Your task to perform on an android device: check battery use Image 0: 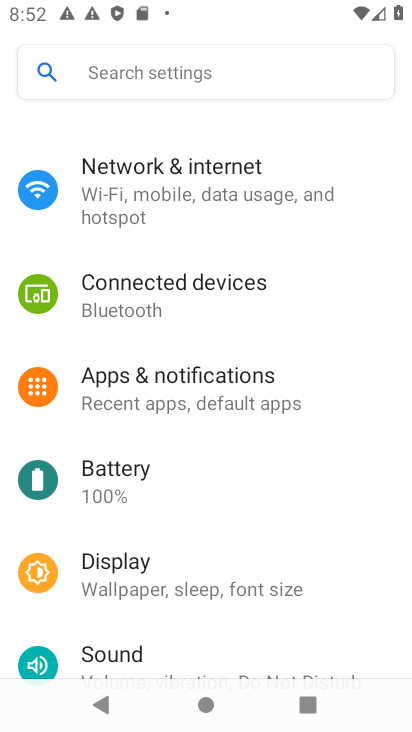
Step 0: press home button
Your task to perform on an android device: check battery use Image 1: 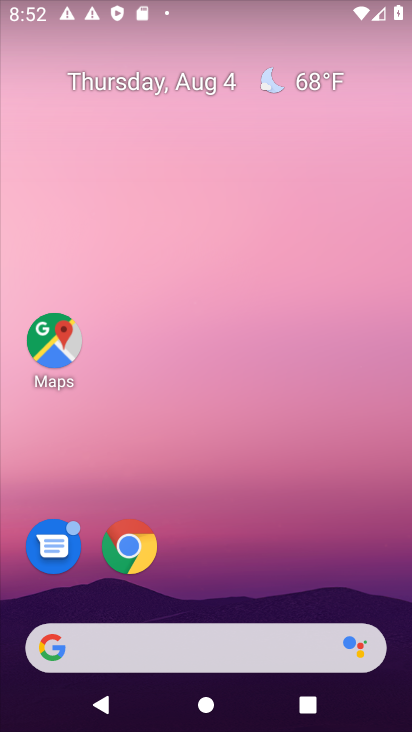
Step 1: drag from (235, 585) to (236, 49)
Your task to perform on an android device: check battery use Image 2: 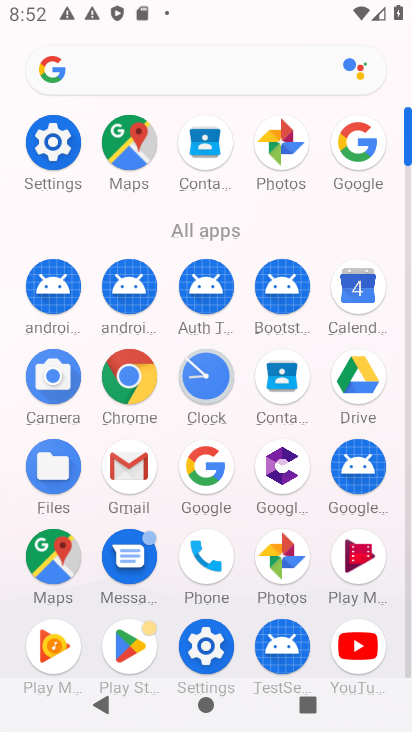
Step 2: click (41, 151)
Your task to perform on an android device: check battery use Image 3: 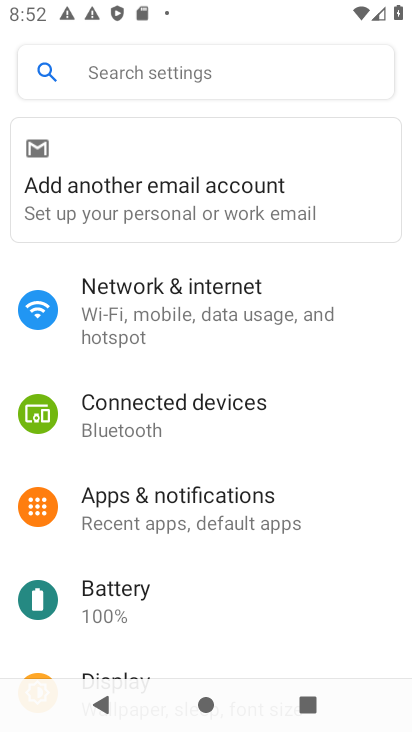
Step 3: click (104, 605)
Your task to perform on an android device: check battery use Image 4: 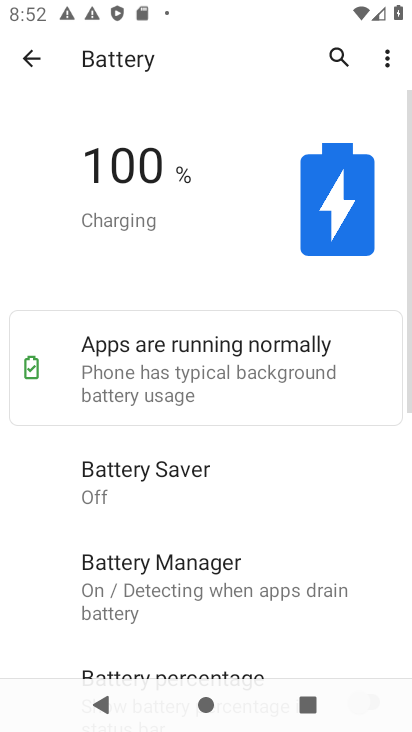
Step 4: click (387, 60)
Your task to perform on an android device: check battery use Image 5: 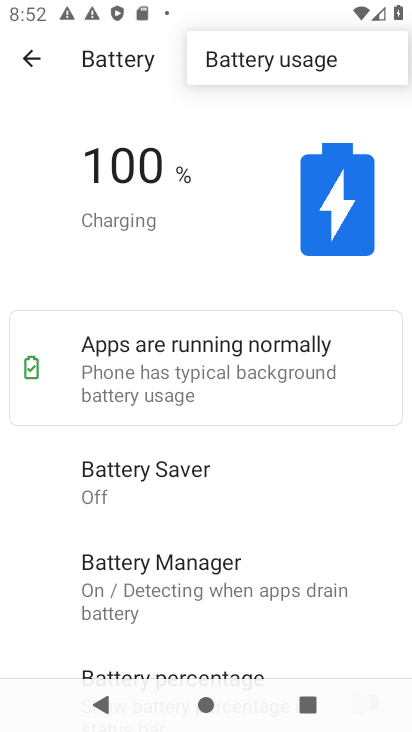
Step 5: click (266, 66)
Your task to perform on an android device: check battery use Image 6: 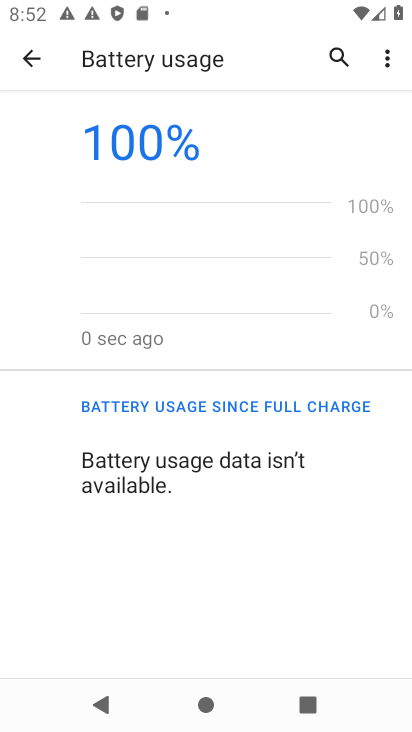
Step 6: task complete